Your task to perform on an android device: turn off notifications in google photos Image 0: 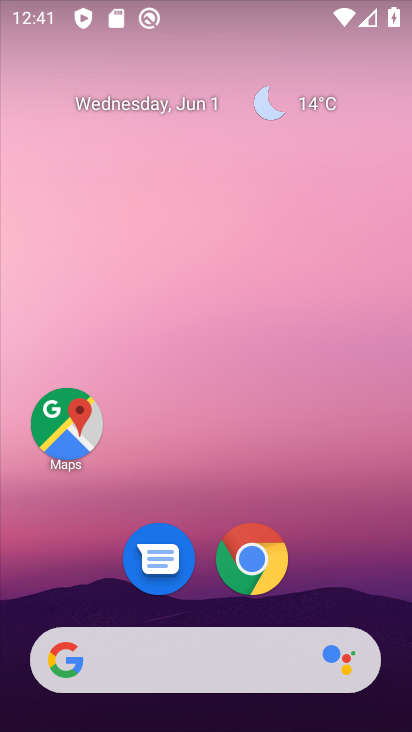
Step 0: drag from (402, 684) to (286, 190)
Your task to perform on an android device: turn off notifications in google photos Image 1: 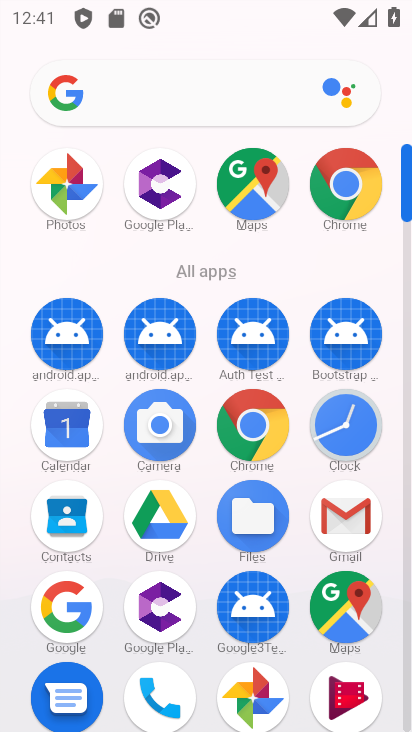
Step 1: click (268, 675)
Your task to perform on an android device: turn off notifications in google photos Image 2: 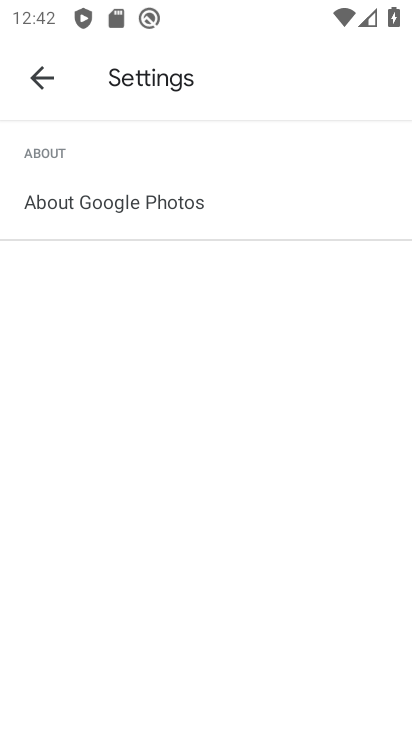
Step 2: click (36, 80)
Your task to perform on an android device: turn off notifications in google photos Image 3: 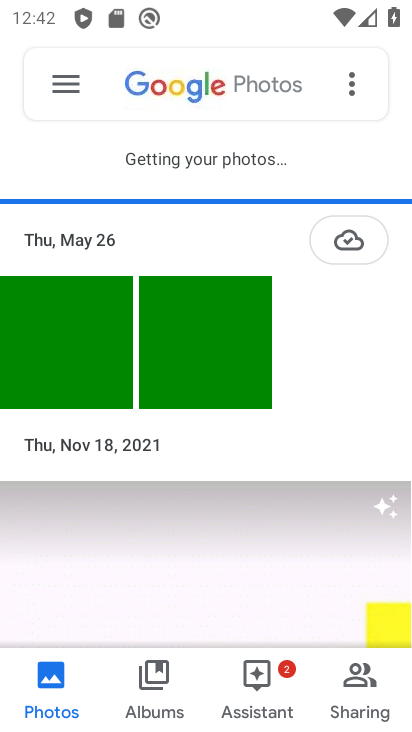
Step 3: click (69, 88)
Your task to perform on an android device: turn off notifications in google photos Image 4: 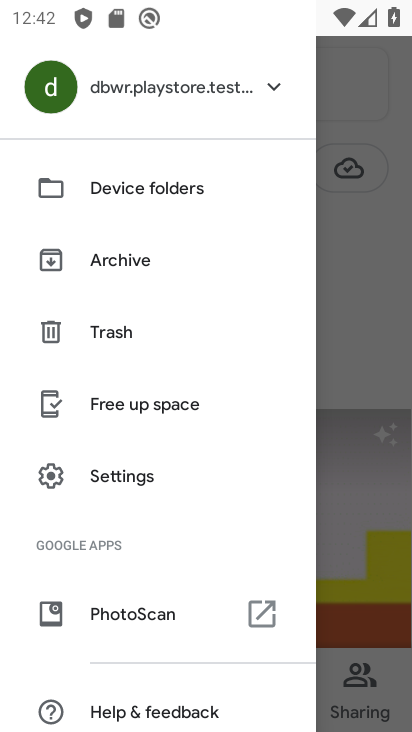
Step 4: click (121, 482)
Your task to perform on an android device: turn off notifications in google photos Image 5: 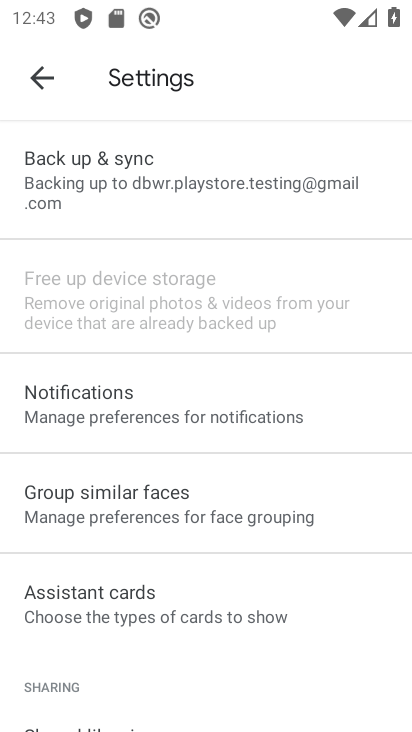
Step 5: click (134, 398)
Your task to perform on an android device: turn off notifications in google photos Image 6: 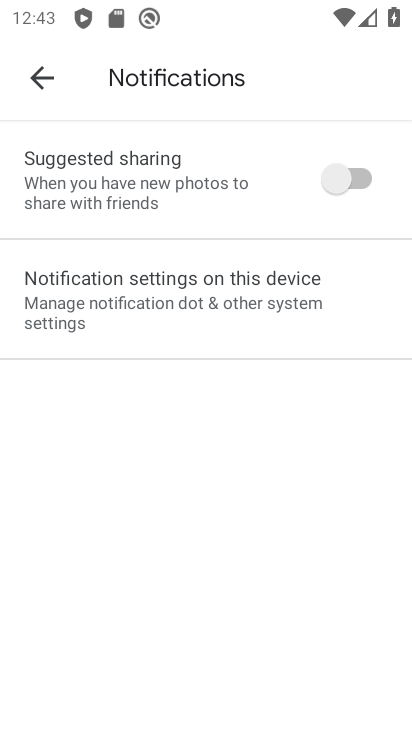
Step 6: click (354, 181)
Your task to perform on an android device: turn off notifications in google photos Image 7: 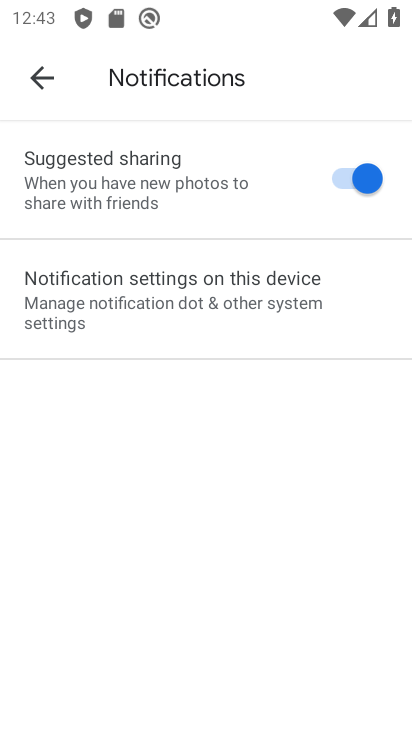
Step 7: click (339, 183)
Your task to perform on an android device: turn off notifications in google photos Image 8: 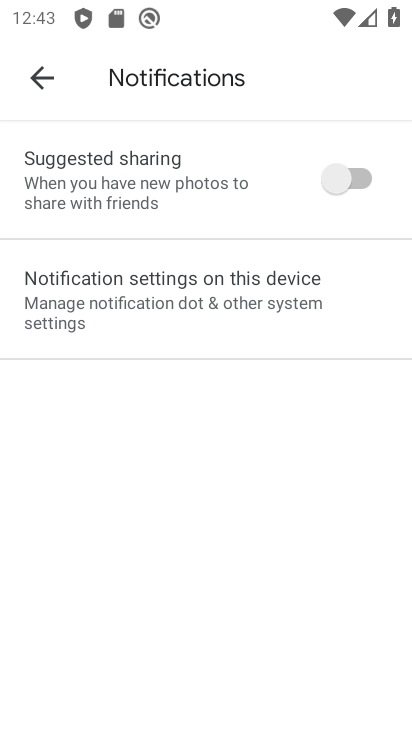
Step 8: task complete